Your task to perform on an android device: Do I have any events tomorrow? Image 0: 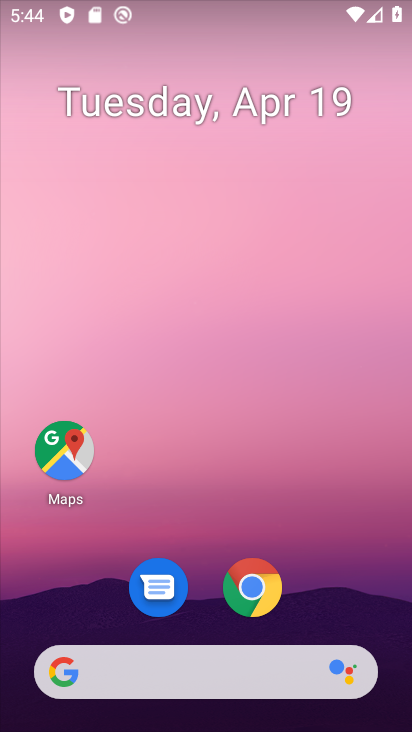
Step 0: click (74, 127)
Your task to perform on an android device: Do I have any events tomorrow? Image 1: 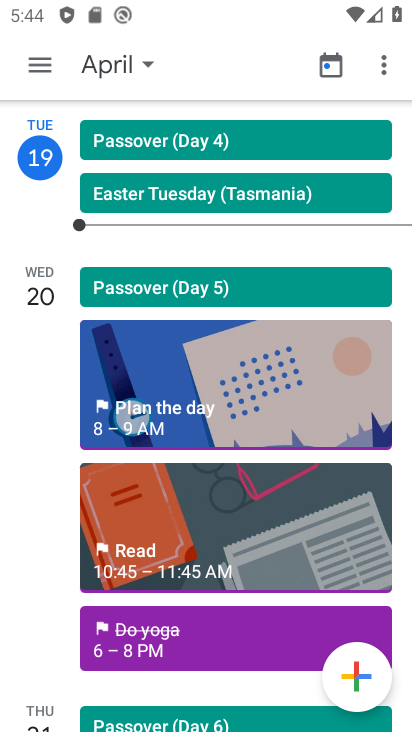
Step 1: click (54, 314)
Your task to perform on an android device: Do I have any events tomorrow? Image 2: 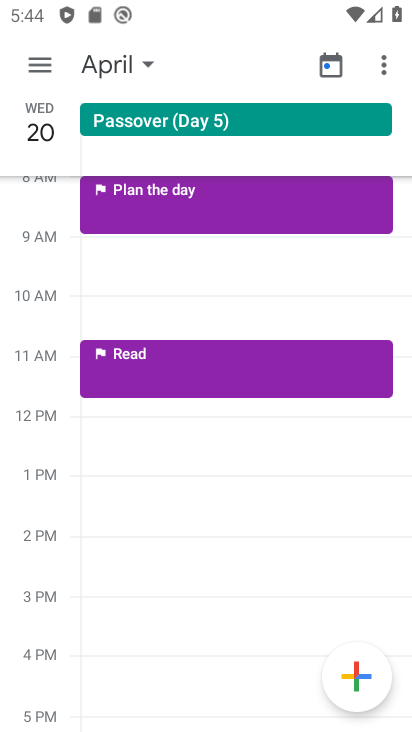
Step 2: task complete